Your task to perform on an android device: Open eBay Image 0: 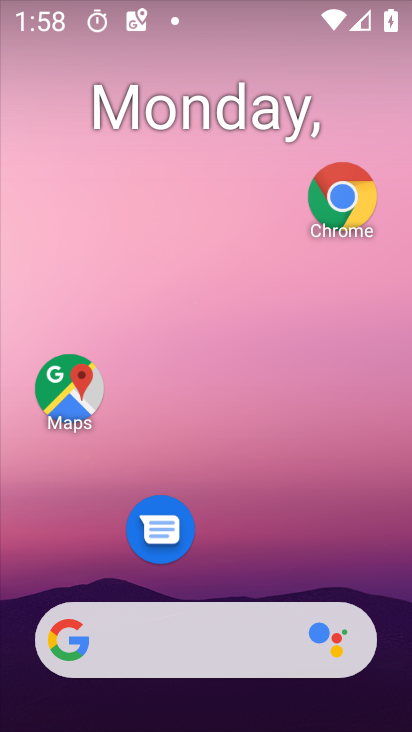
Step 0: click (337, 201)
Your task to perform on an android device: Open eBay Image 1: 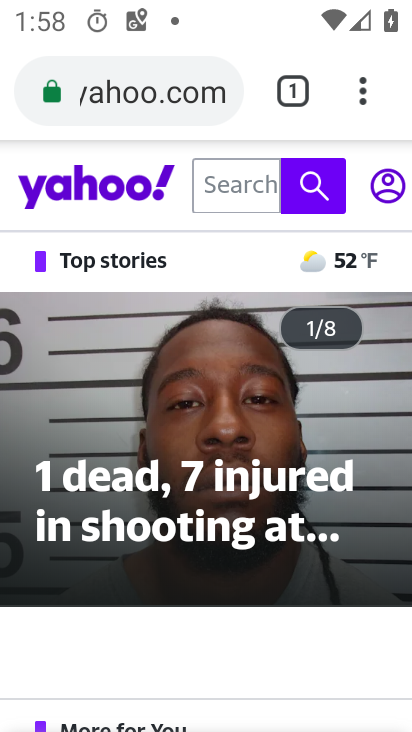
Step 1: click (280, 89)
Your task to perform on an android device: Open eBay Image 2: 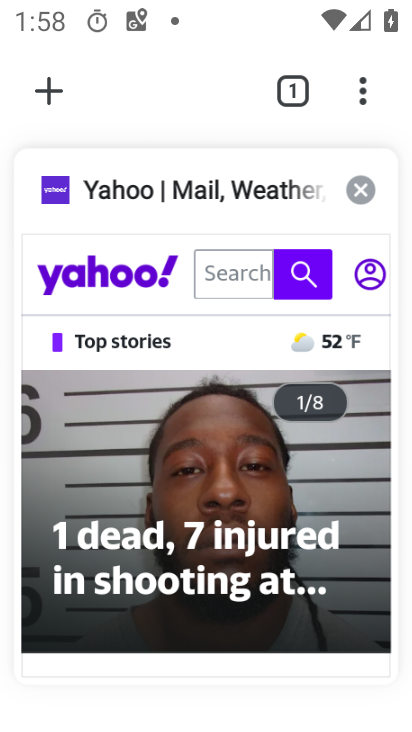
Step 2: click (48, 89)
Your task to perform on an android device: Open eBay Image 3: 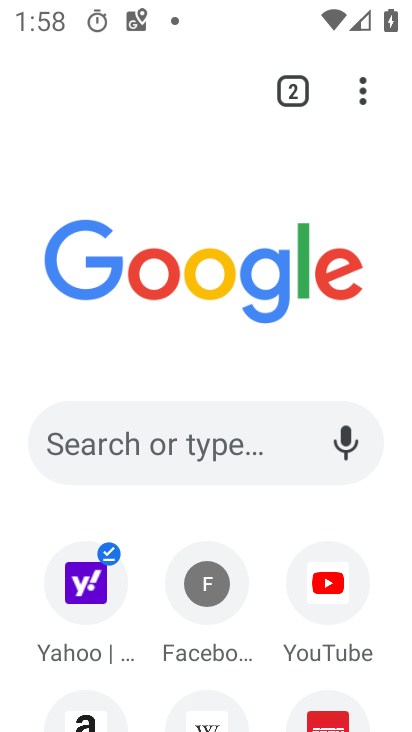
Step 3: click (184, 432)
Your task to perform on an android device: Open eBay Image 4: 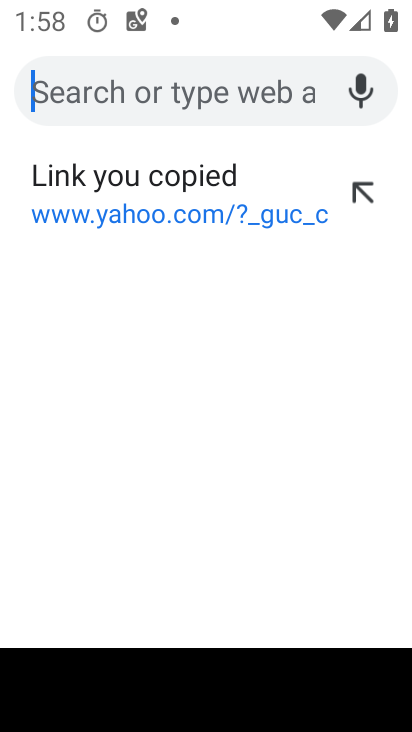
Step 4: type "ebay"
Your task to perform on an android device: Open eBay Image 5: 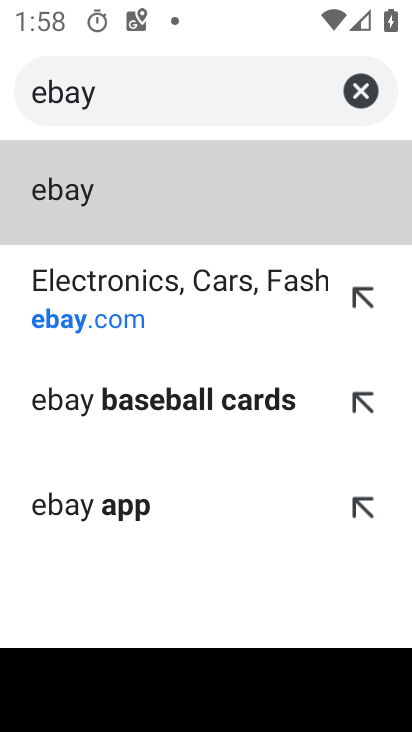
Step 5: click (220, 287)
Your task to perform on an android device: Open eBay Image 6: 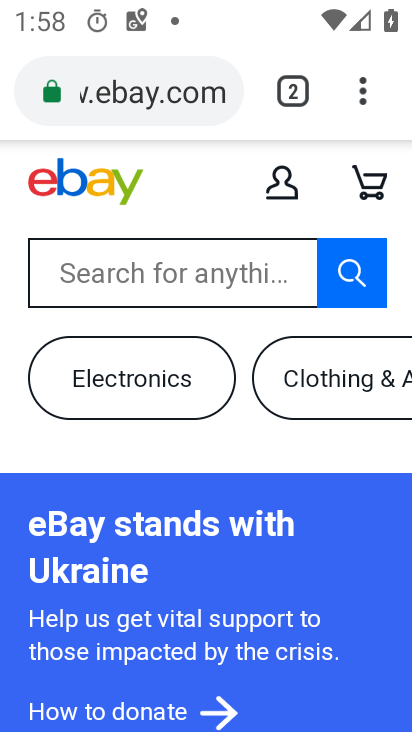
Step 6: task complete